Your task to perform on an android device: check battery use Image 0: 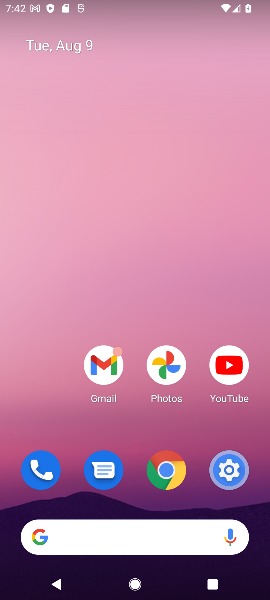
Step 0: drag from (127, 512) to (155, 9)
Your task to perform on an android device: check battery use Image 1: 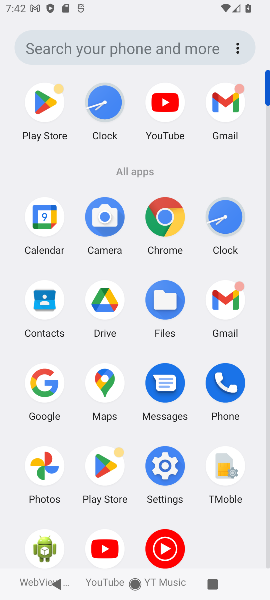
Step 1: click (165, 471)
Your task to perform on an android device: check battery use Image 2: 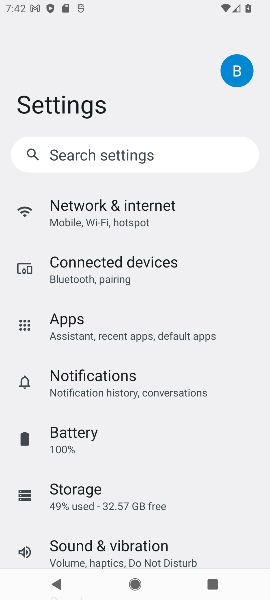
Step 2: click (95, 440)
Your task to perform on an android device: check battery use Image 3: 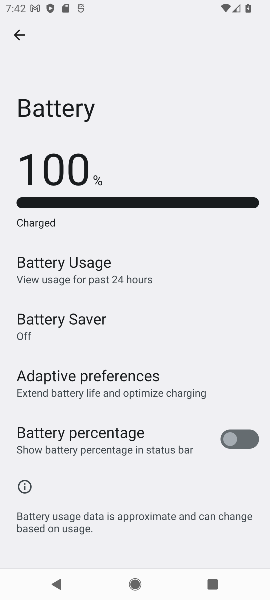
Step 3: click (64, 279)
Your task to perform on an android device: check battery use Image 4: 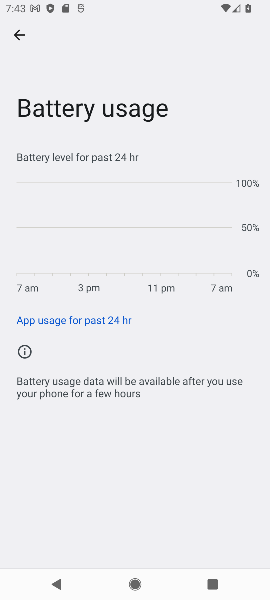
Step 4: task complete